Your task to perform on an android device: Open wifi settings Image 0: 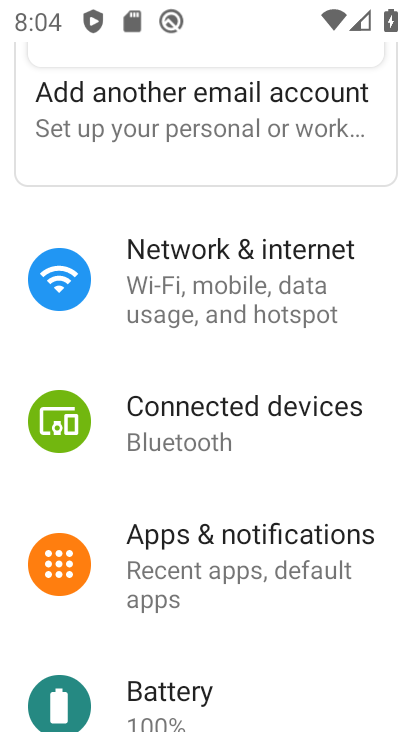
Step 0: click (234, 291)
Your task to perform on an android device: Open wifi settings Image 1: 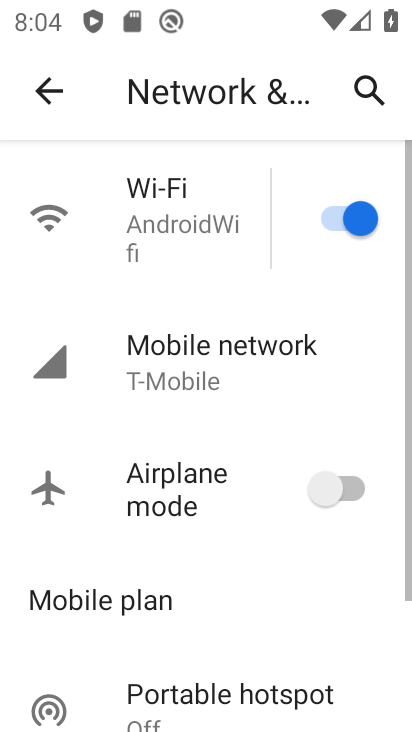
Step 1: click (165, 220)
Your task to perform on an android device: Open wifi settings Image 2: 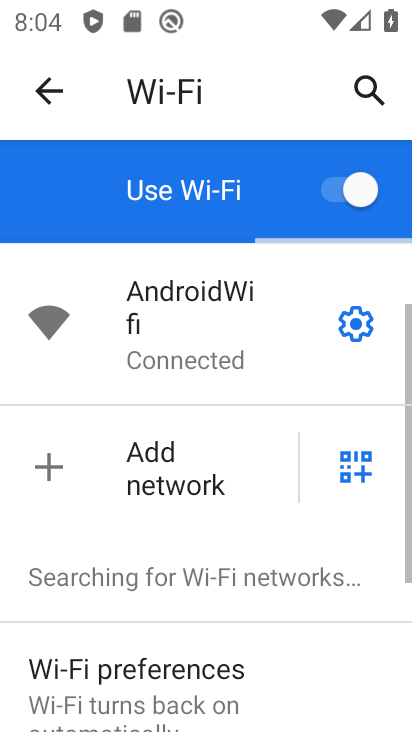
Step 2: click (358, 319)
Your task to perform on an android device: Open wifi settings Image 3: 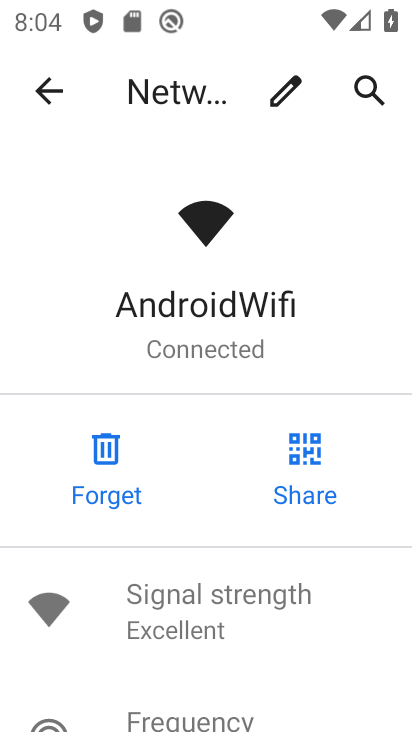
Step 3: task complete